Your task to perform on an android device: What is the news today? Image 0: 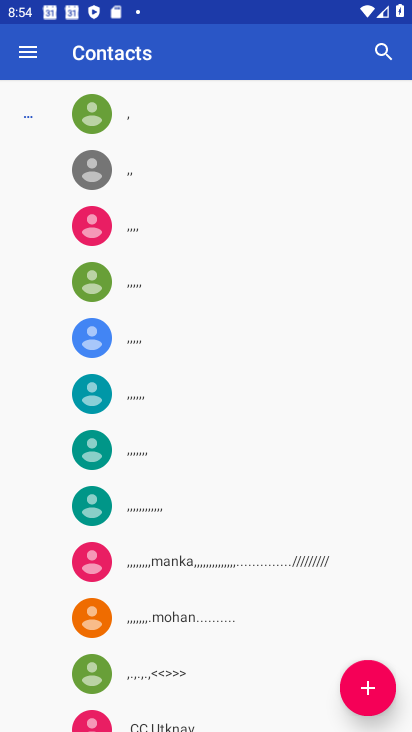
Step 0: press home button
Your task to perform on an android device: What is the news today? Image 1: 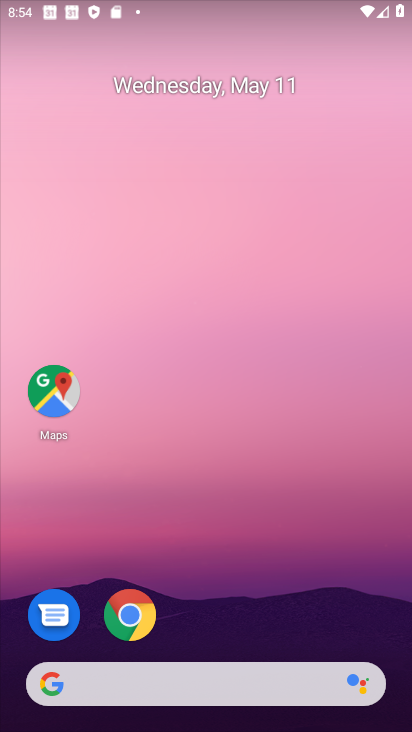
Step 1: click (124, 692)
Your task to perform on an android device: What is the news today? Image 2: 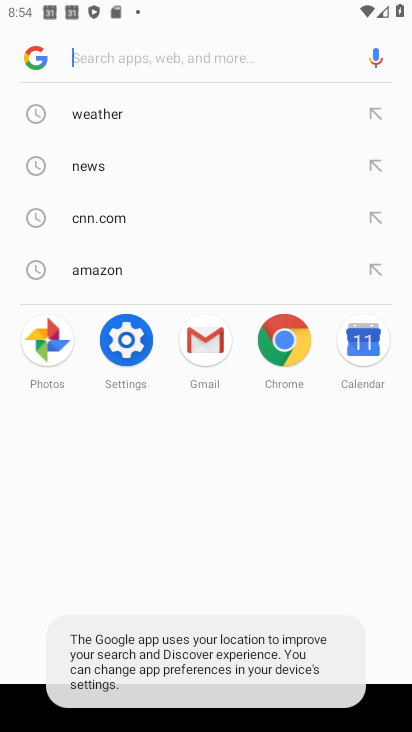
Step 2: click (70, 162)
Your task to perform on an android device: What is the news today? Image 3: 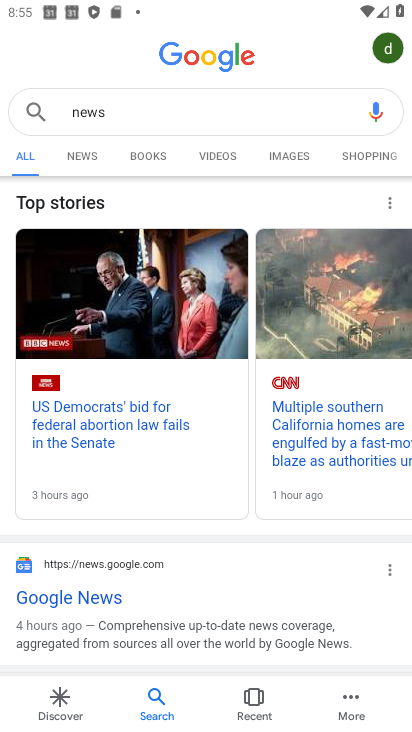
Step 3: task complete